Your task to perform on an android device: Go to privacy settings Image 0: 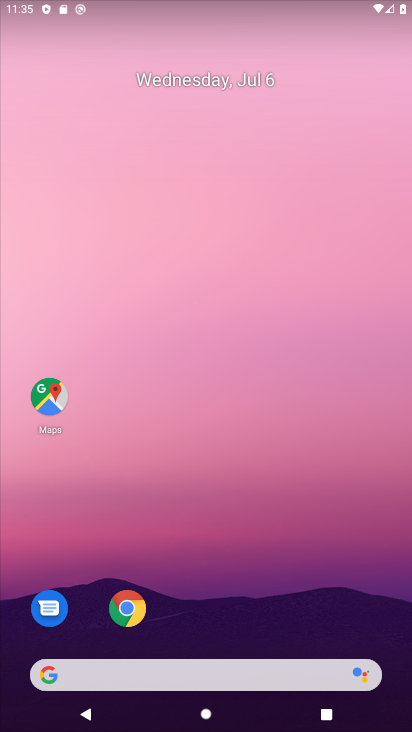
Step 0: click (149, 611)
Your task to perform on an android device: Go to privacy settings Image 1: 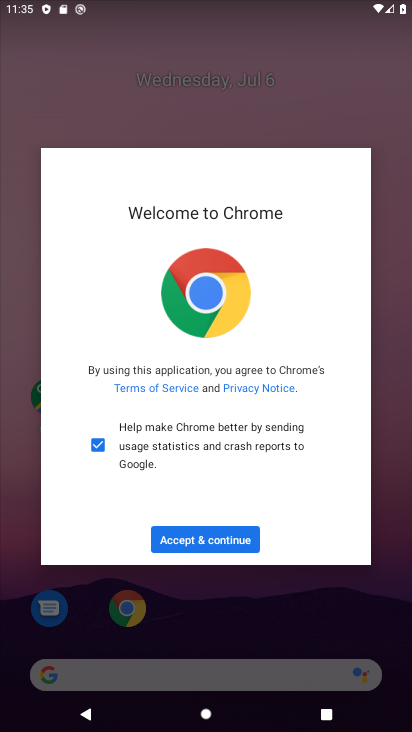
Step 1: click (239, 538)
Your task to perform on an android device: Go to privacy settings Image 2: 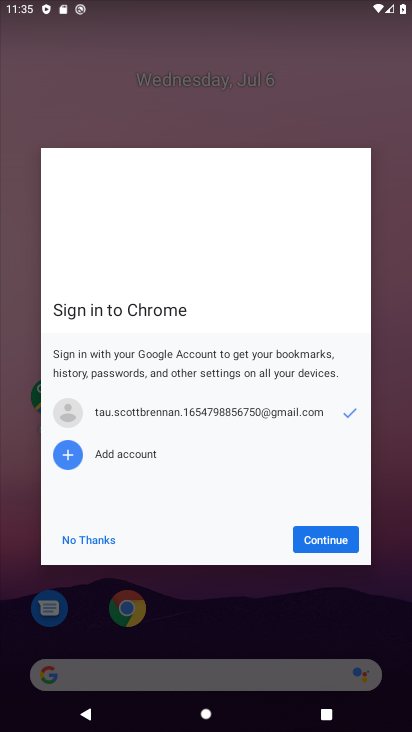
Step 2: click (322, 528)
Your task to perform on an android device: Go to privacy settings Image 3: 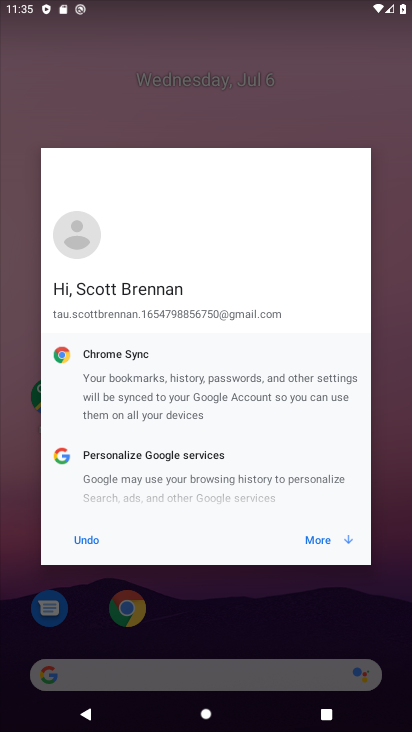
Step 3: click (335, 537)
Your task to perform on an android device: Go to privacy settings Image 4: 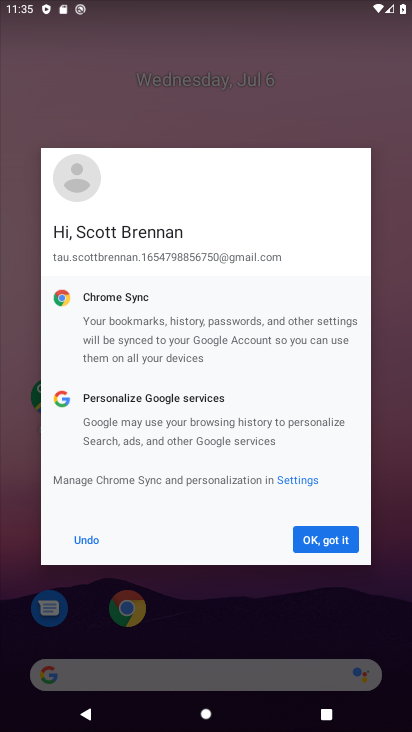
Step 4: click (334, 535)
Your task to perform on an android device: Go to privacy settings Image 5: 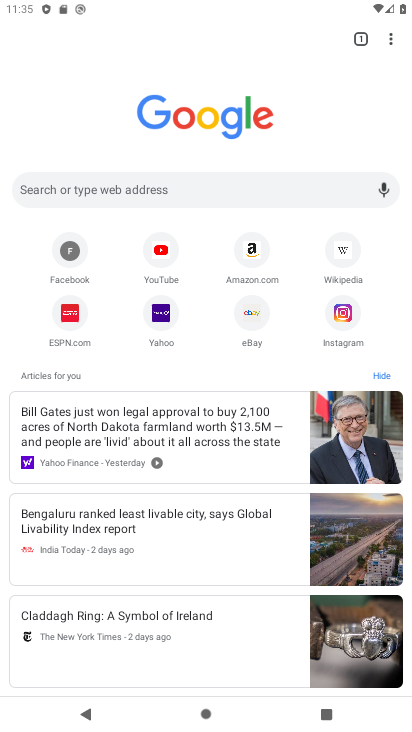
Step 5: click (387, 40)
Your task to perform on an android device: Go to privacy settings Image 6: 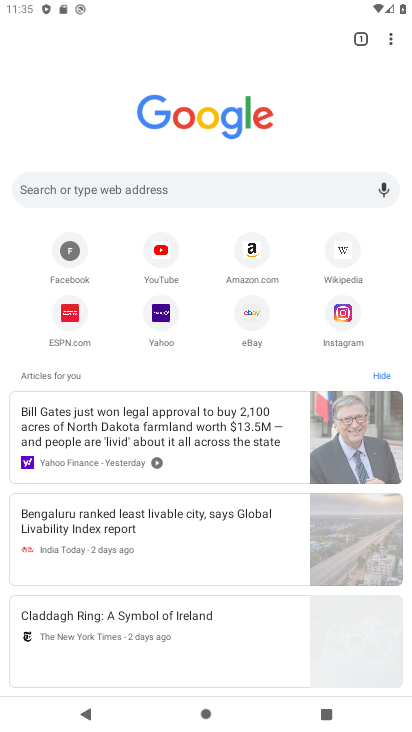
Step 6: drag from (394, 26) to (303, 332)
Your task to perform on an android device: Go to privacy settings Image 7: 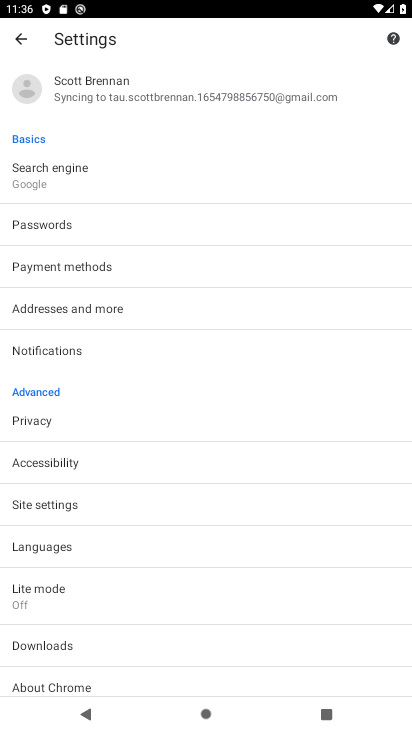
Step 7: click (87, 431)
Your task to perform on an android device: Go to privacy settings Image 8: 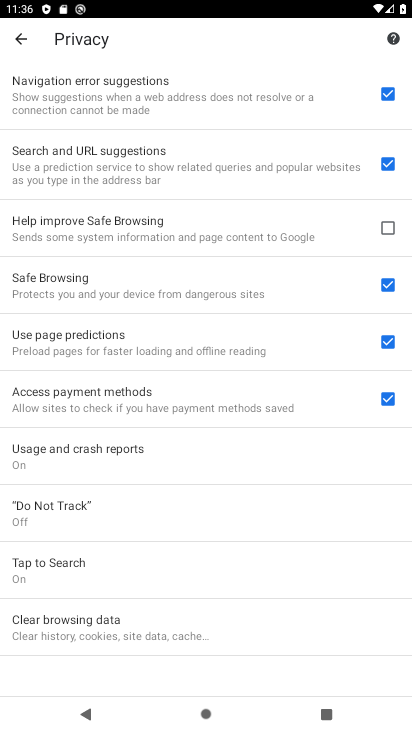
Step 8: task complete